Your task to perform on an android device: What is the news today? Image 0: 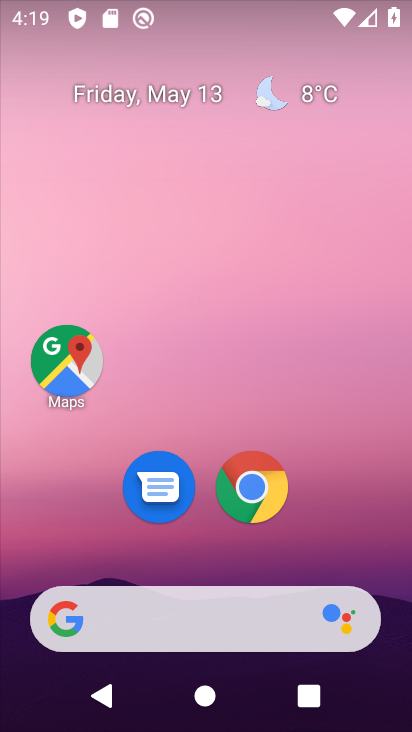
Step 0: drag from (339, 558) to (335, 419)
Your task to perform on an android device: What is the news today? Image 1: 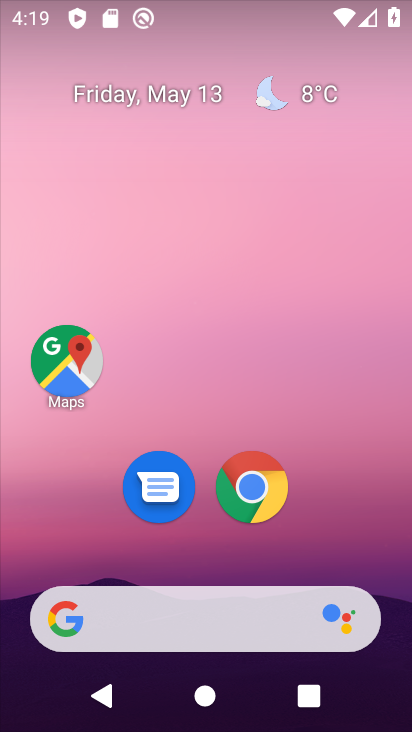
Step 1: click (183, 617)
Your task to perform on an android device: What is the news today? Image 2: 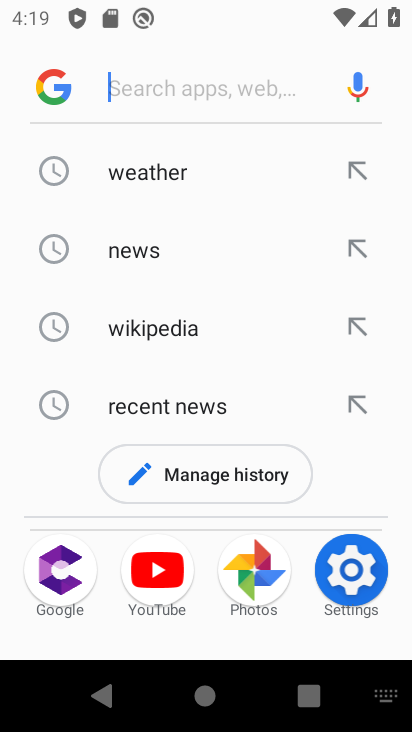
Step 2: click (209, 251)
Your task to perform on an android device: What is the news today? Image 3: 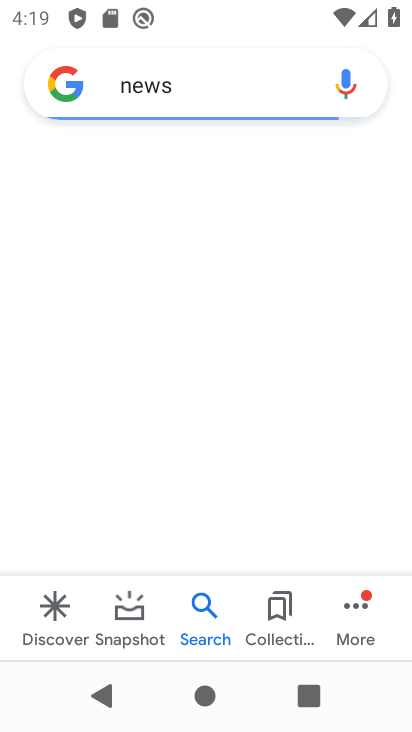
Step 3: task complete